Your task to perform on an android device: remove spam from my inbox in the gmail app Image 0: 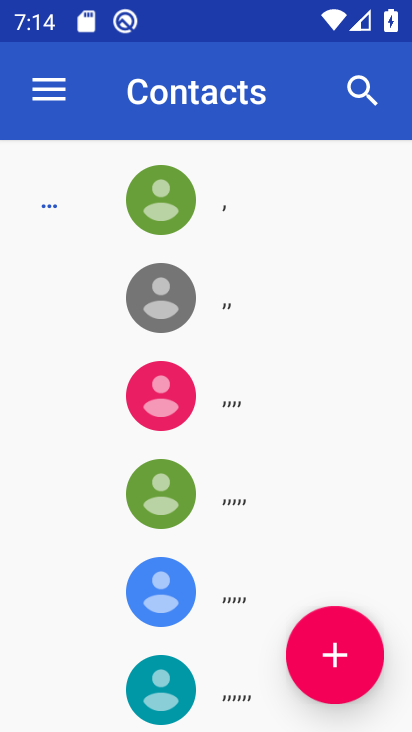
Step 0: press home button
Your task to perform on an android device: remove spam from my inbox in the gmail app Image 1: 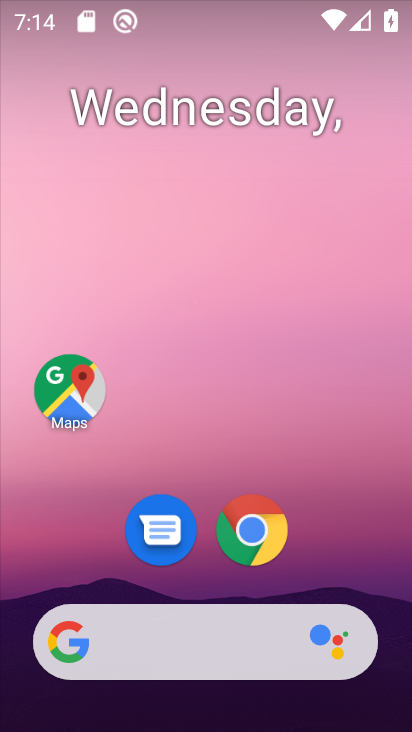
Step 1: drag from (391, 621) to (260, 43)
Your task to perform on an android device: remove spam from my inbox in the gmail app Image 2: 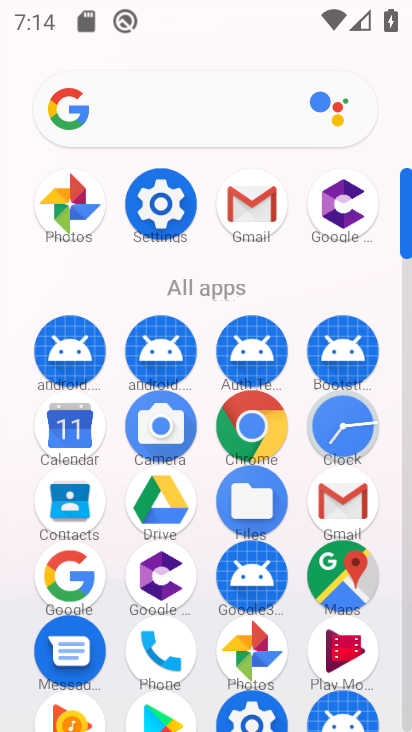
Step 2: click (334, 491)
Your task to perform on an android device: remove spam from my inbox in the gmail app Image 3: 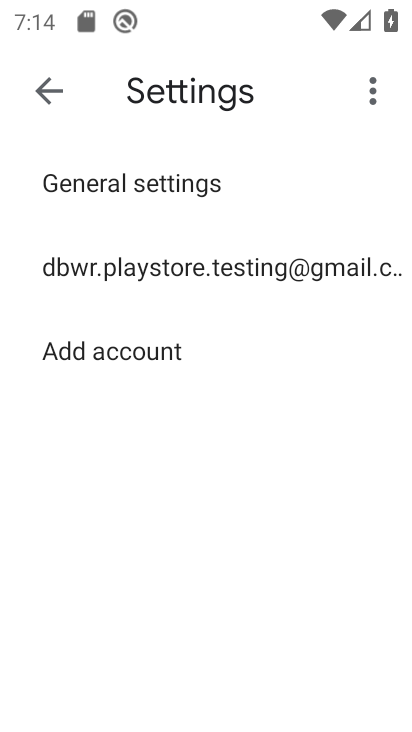
Step 3: press back button
Your task to perform on an android device: remove spam from my inbox in the gmail app Image 4: 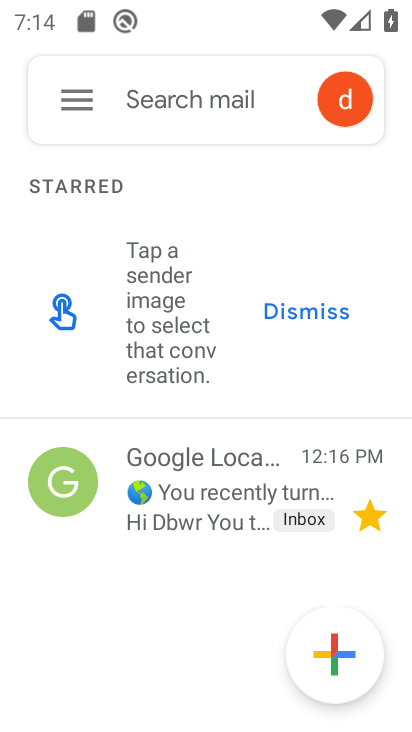
Step 4: click (69, 100)
Your task to perform on an android device: remove spam from my inbox in the gmail app Image 5: 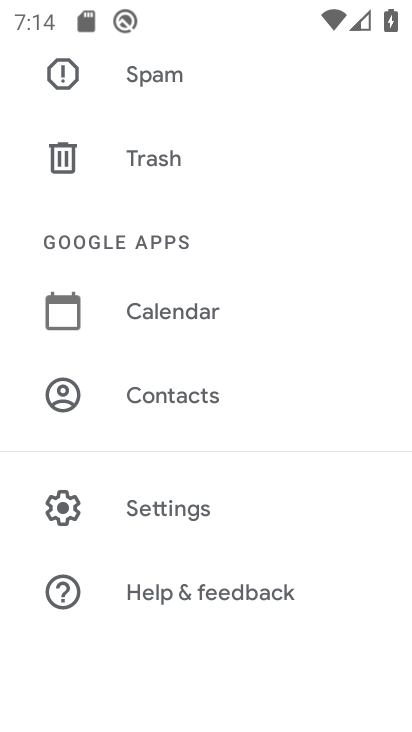
Step 5: click (151, 104)
Your task to perform on an android device: remove spam from my inbox in the gmail app Image 6: 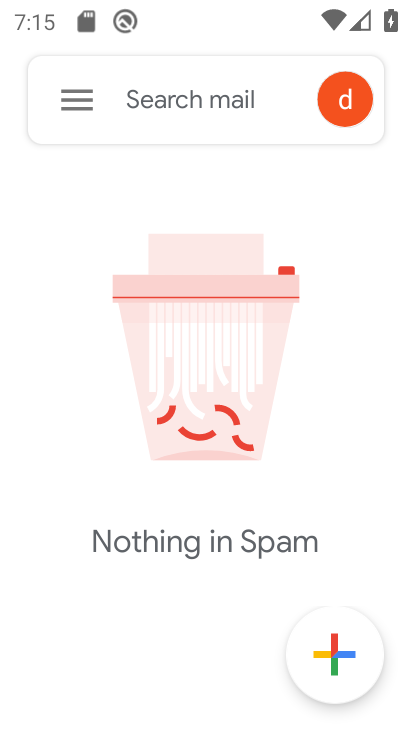
Step 6: task complete